Your task to perform on an android device: Go to sound settings Image 0: 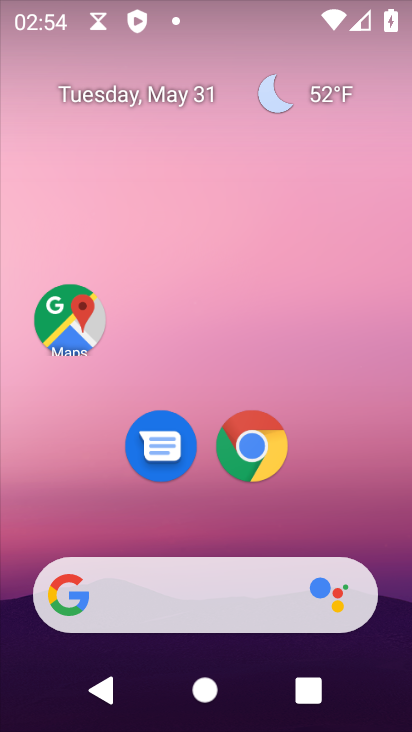
Step 0: drag from (334, 508) to (316, 177)
Your task to perform on an android device: Go to sound settings Image 1: 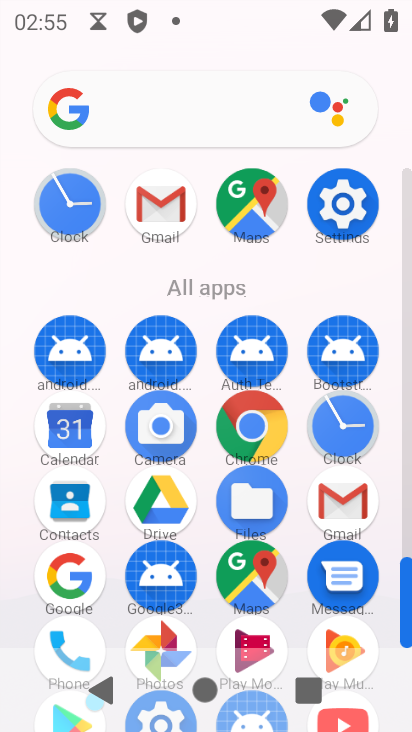
Step 1: click (342, 201)
Your task to perform on an android device: Go to sound settings Image 2: 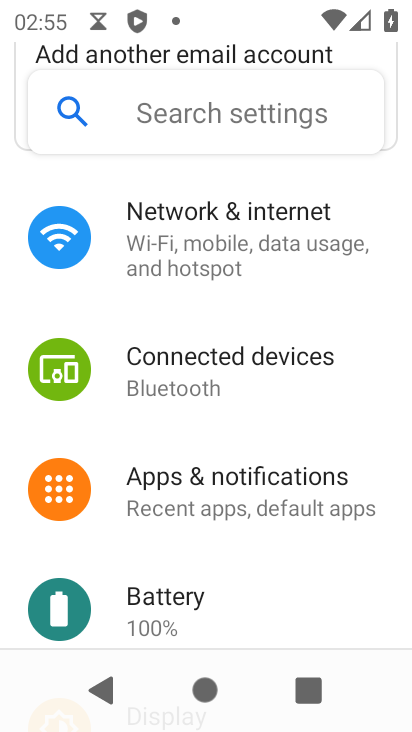
Step 2: drag from (191, 428) to (258, 325)
Your task to perform on an android device: Go to sound settings Image 3: 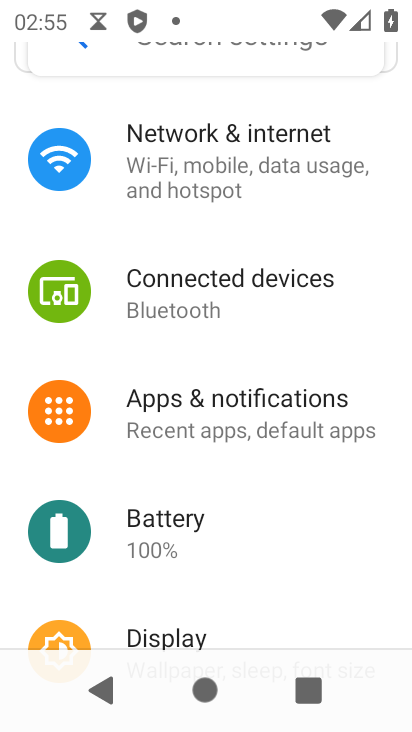
Step 3: drag from (224, 495) to (269, 358)
Your task to perform on an android device: Go to sound settings Image 4: 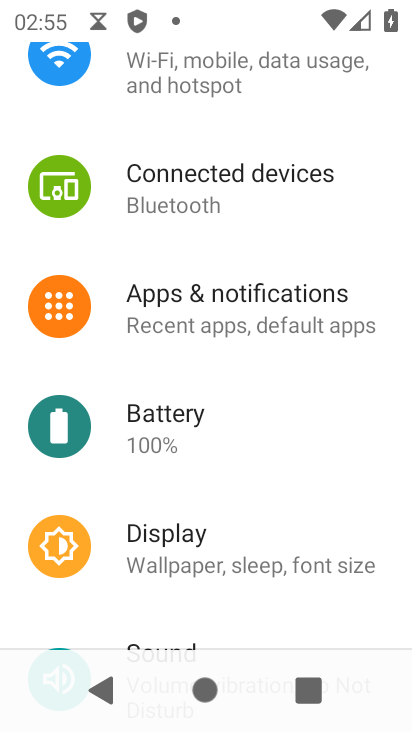
Step 4: drag from (171, 488) to (239, 334)
Your task to perform on an android device: Go to sound settings Image 5: 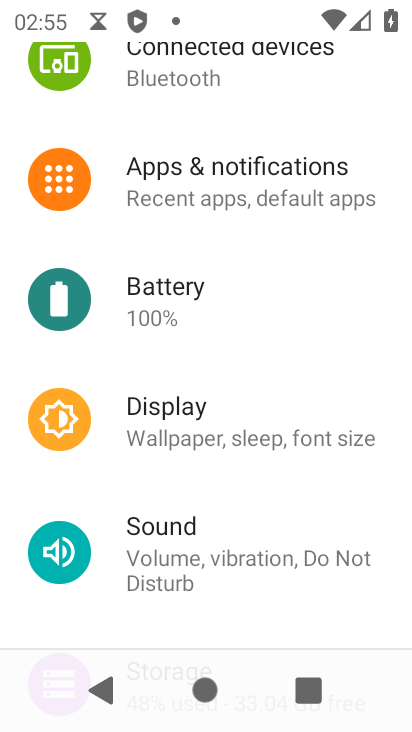
Step 5: drag from (142, 478) to (217, 364)
Your task to perform on an android device: Go to sound settings Image 6: 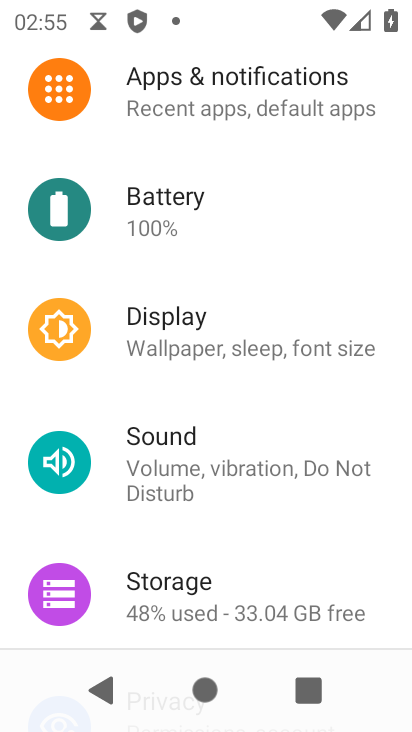
Step 6: click (165, 452)
Your task to perform on an android device: Go to sound settings Image 7: 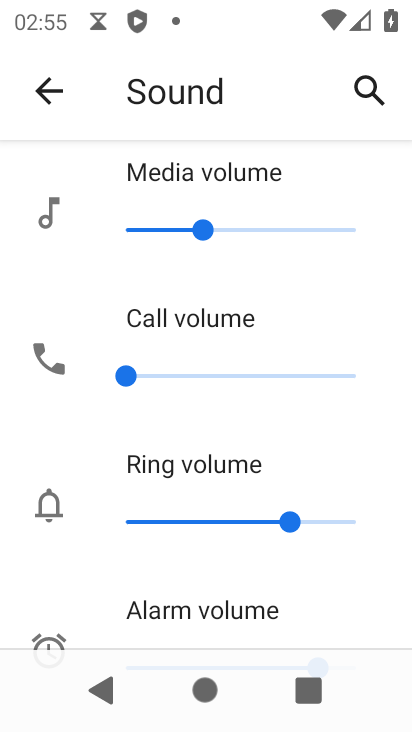
Step 7: task complete